Your task to perform on an android device: turn on location history Image 0: 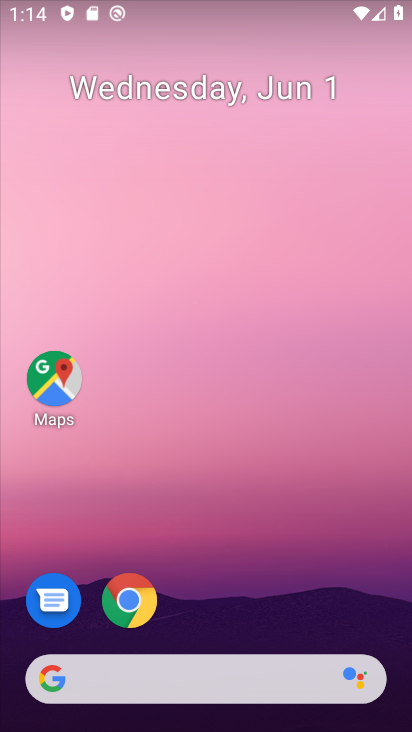
Step 0: drag from (210, 635) to (256, 136)
Your task to perform on an android device: turn on location history Image 1: 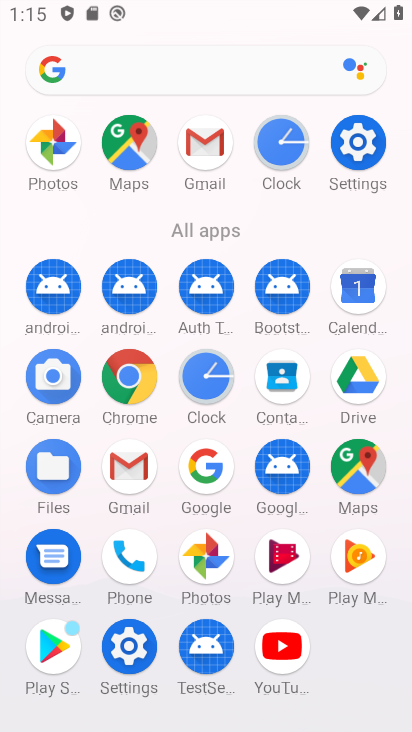
Step 1: drag from (176, 560) to (230, 274)
Your task to perform on an android device: turn on location history Image 2: 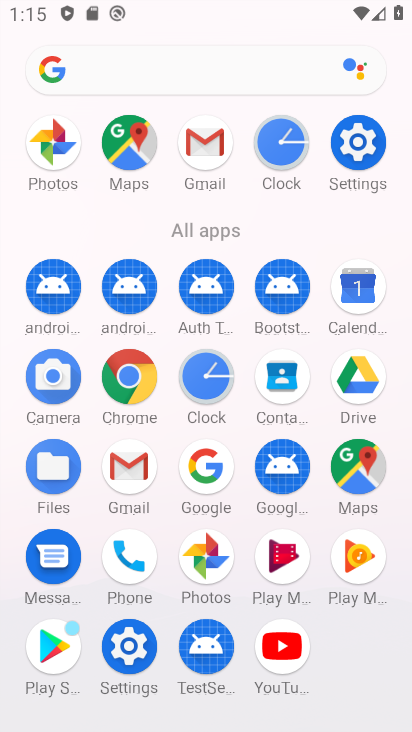
Step 2: click (136, 656)
Your task to perform on an android device: turn on location history Image 3: 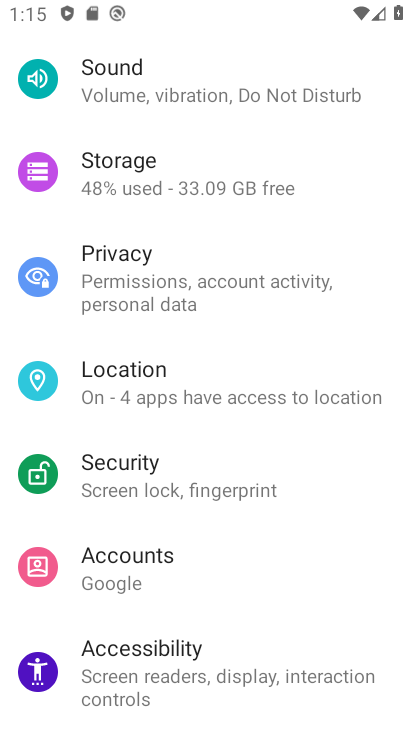
Step 3: drag from (173, 668) to (225, 667)
Your task to perform on an android device: turn on location history Image 4: 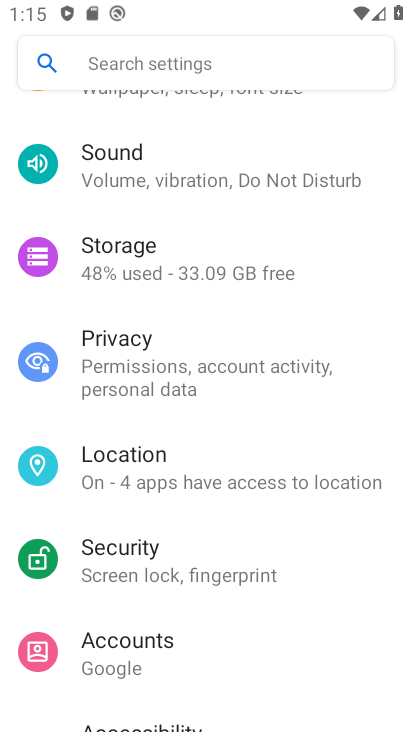
Step 4: click (175, 471)
Your task to perform on an android device: turn on location history Image 5: 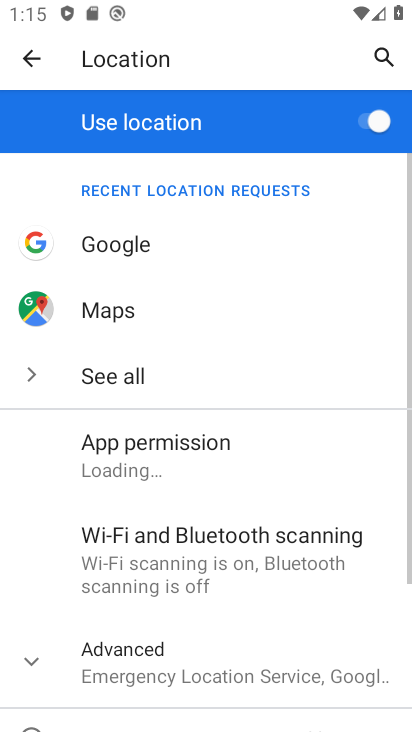
Step 5: click (183, 656)
Your task to perform on an android device: turn on location history Image 6: 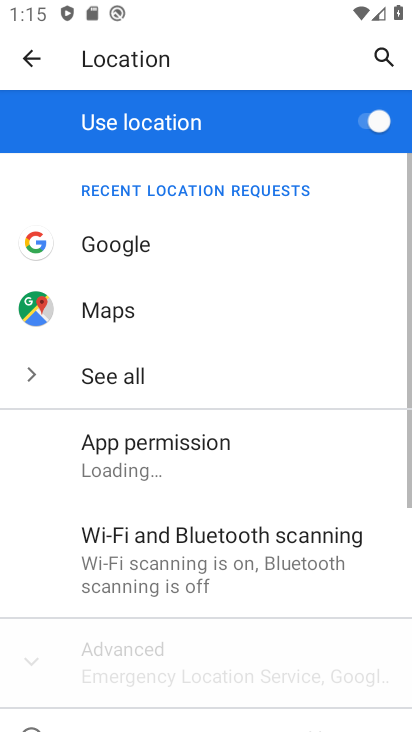
Step 6: drag from (182, 655) to (262, 135)
Your task to perform on an android device: turn on location history Image 7: 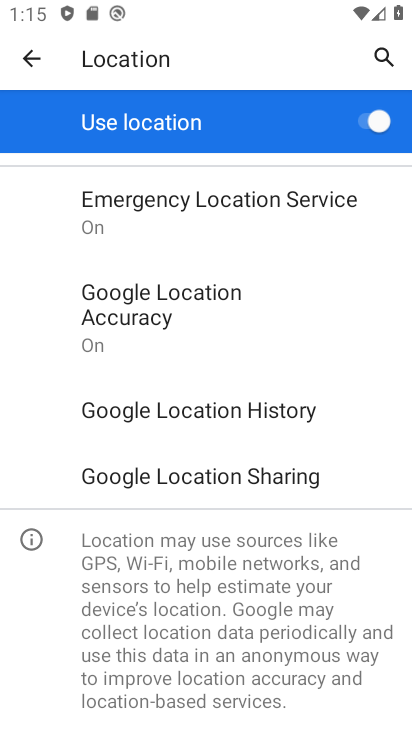
Step 7: click (211, 408)
Your task to perform on an android device: turn on location history Image 8: 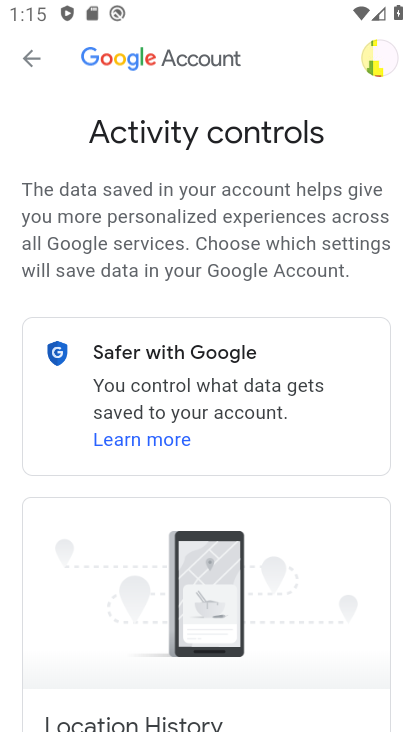
Step 8: drag from (203, 618) to (283, 174)
Your task to perform on an android device: turn on location history Image 9: 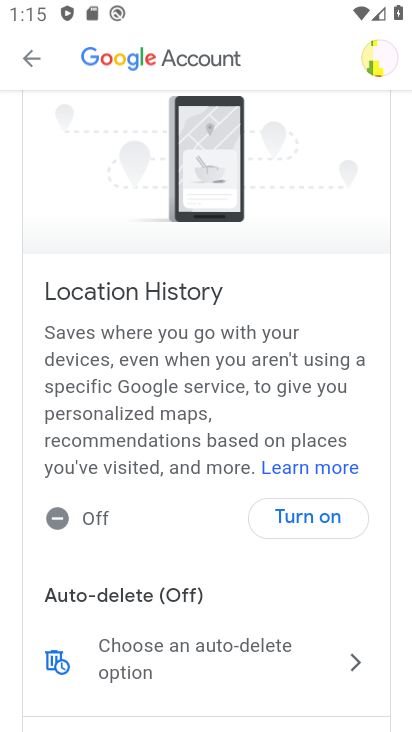
Step 9: click (326, 516)
Your task to perform on an android device: turn on location history Image 10: 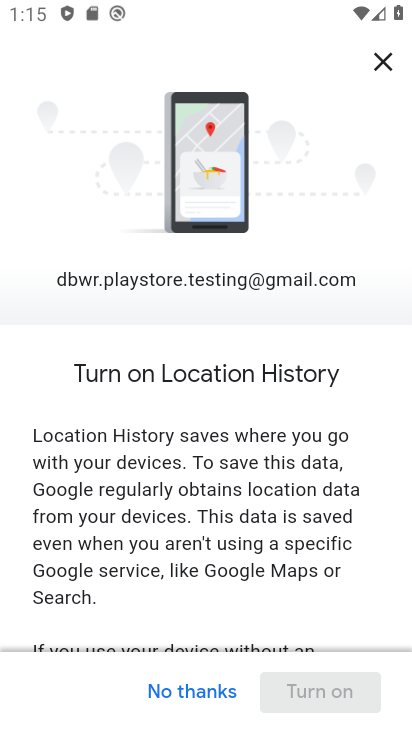
Step 10: drag from (124, 557) to (282, 241)
Your task to perform on an android device: turn on location history Image 11: 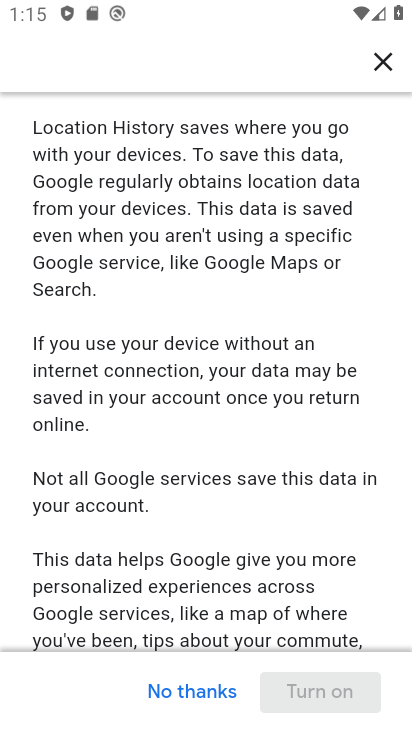
Step 11: drag from (230, 617) to (382, 115)
Your task to perform on an android device: turn on location history Image 12: 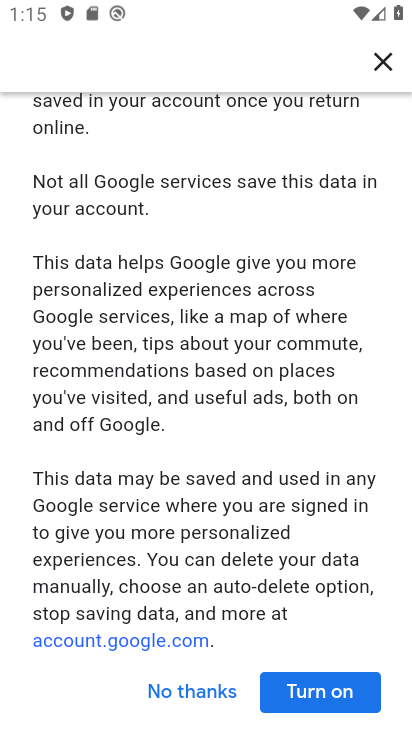
Step 12: click (339, 699)
Your task to perform on an android device: turn on location history Image 13: 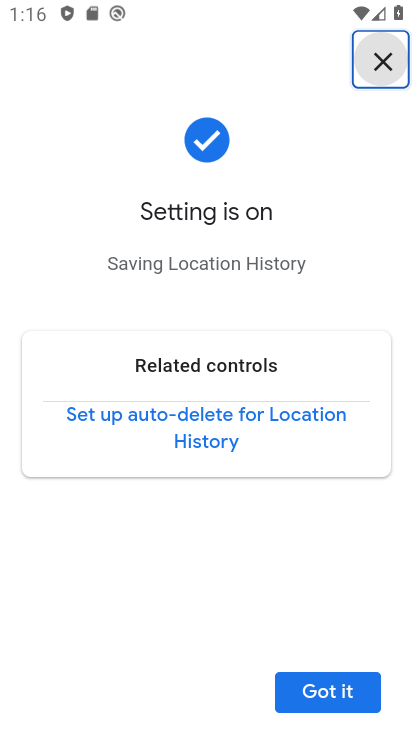
Step 13: click (359, 706)
Your task to perform on an android device: turn on location history Image 14: 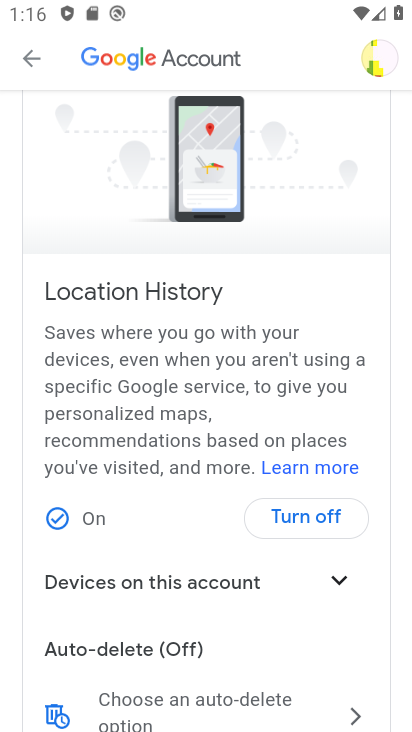
Step 14: task complete